Your task to perform on an android device: Open Wikipedia Image 0: 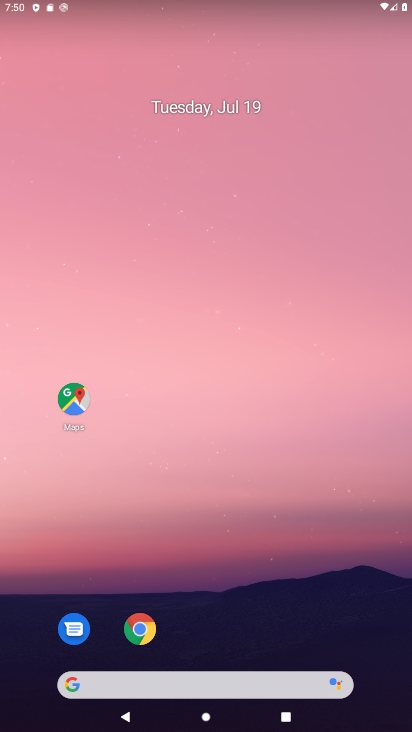
Step 0: click (140, 627)
Your task to perform on an android device: Open Wikipedia Image 1: 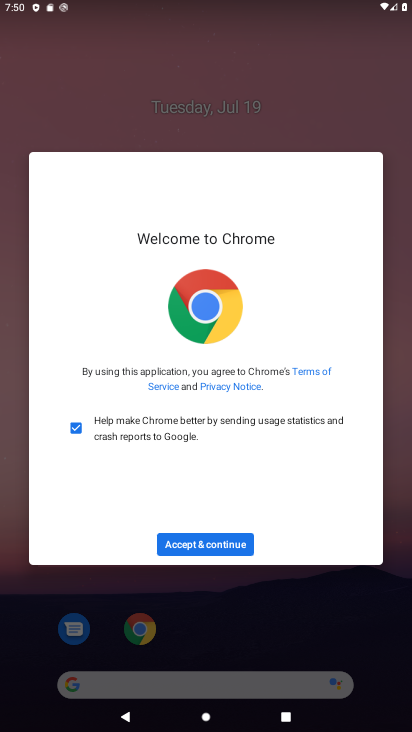
Step 1: click (220, 540)
Your task to perform on an android device: Open Wikipedia Image 2: 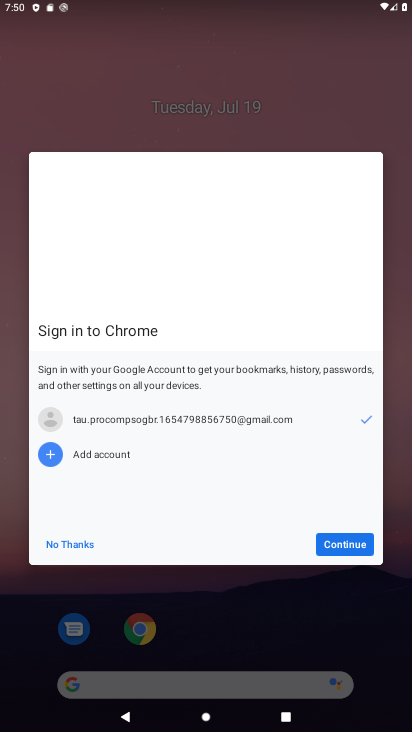
Step 2: click (346, 549)
Your task to perform on an android device: Open Wikipedia Image 3: 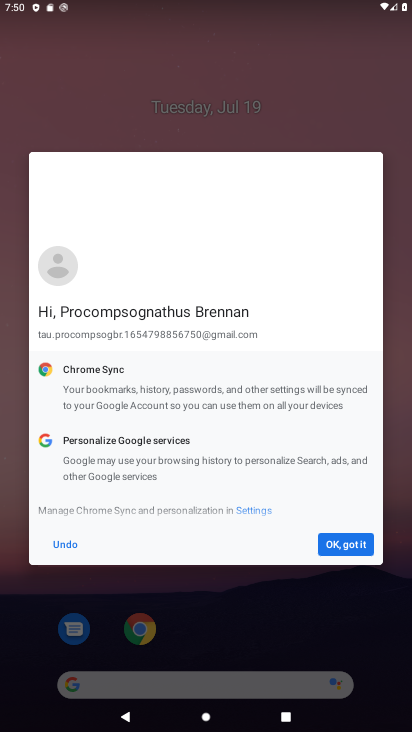
Step 3: click (346, 549)
Your task to perform on an android device: Open Wikipedia Image 4: 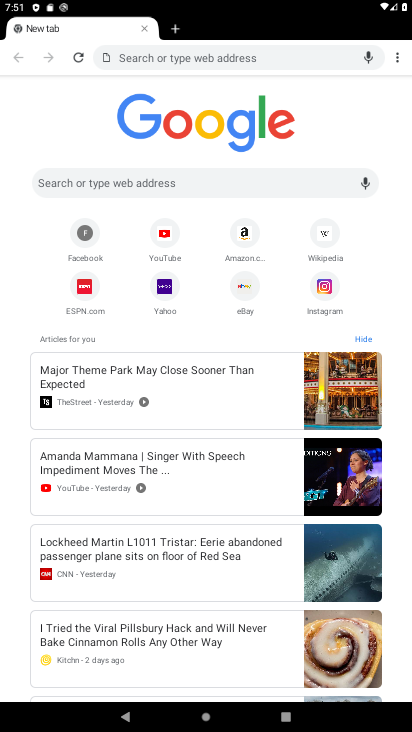
Step 4: click (326, 243)
Your task to perform on an android device: Open Wikipedia Image 5: 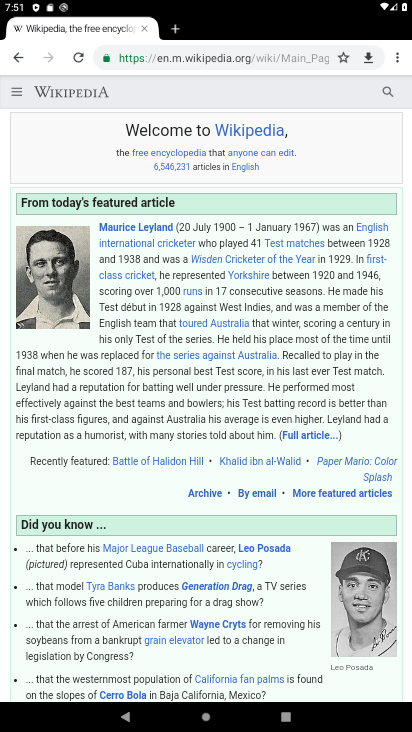
Step 5: task complete